Your task to perform on an android device: check battery use Image 0: 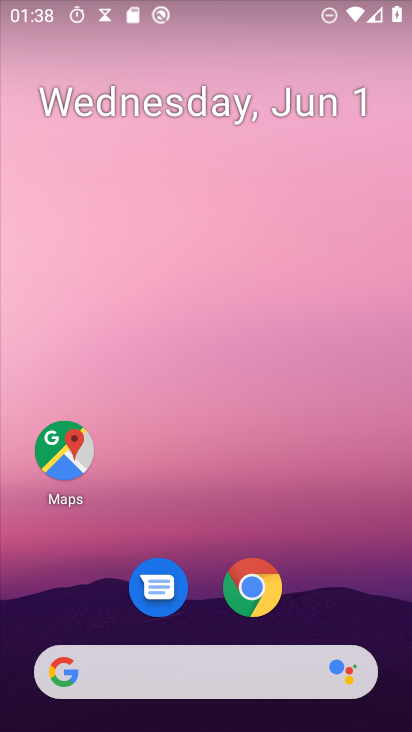
Step 0: drag from (320, 585) to (338, 12)
Your task to perform on an android device: check battery use Image 1: 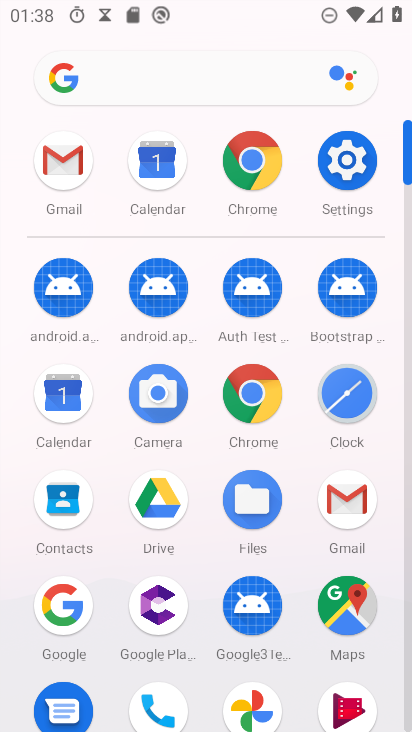
Step 1: click (339, 175)
Your task to perform on an android device: check battery use Image 2: 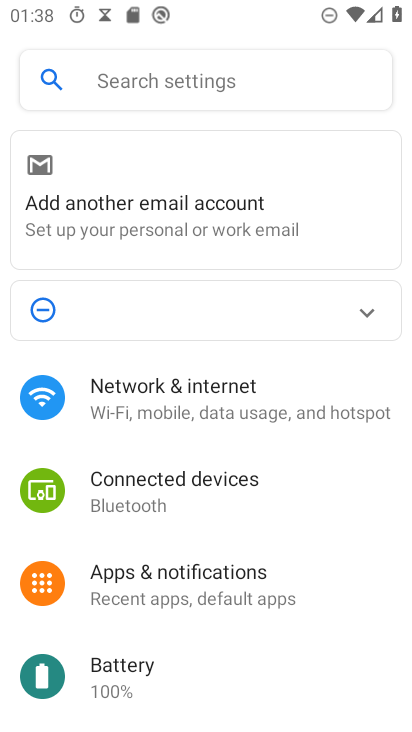
Step 2: click (155, 680)
Your task to perform on an android device: check battery use Image 3: 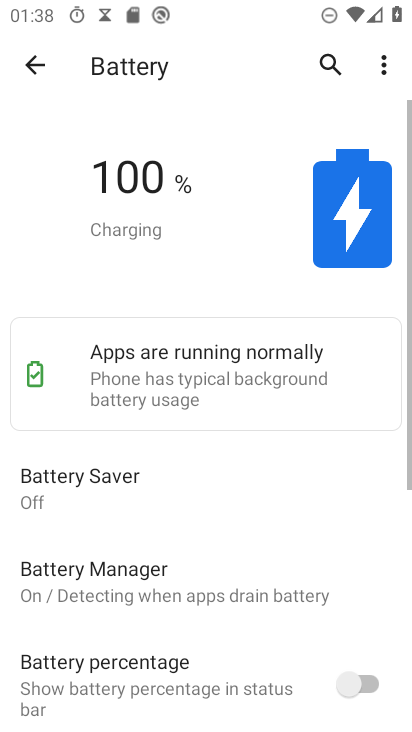
Step 3: click (386, 70)
Your task to perform on an android device: check battery use Image 4: 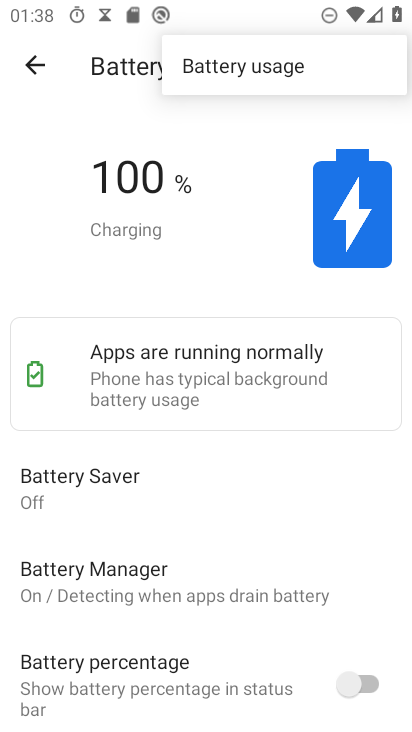
Step 4: click (267, 68)
Your task to perform on an android device: check battery use Image 5: 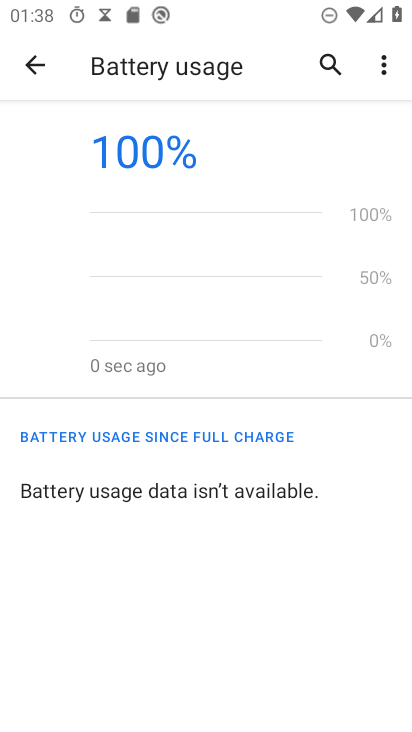
Step 5: task complete